Your task to perform on an android device: Search for vegetarian restaurants on Maps Image 0: 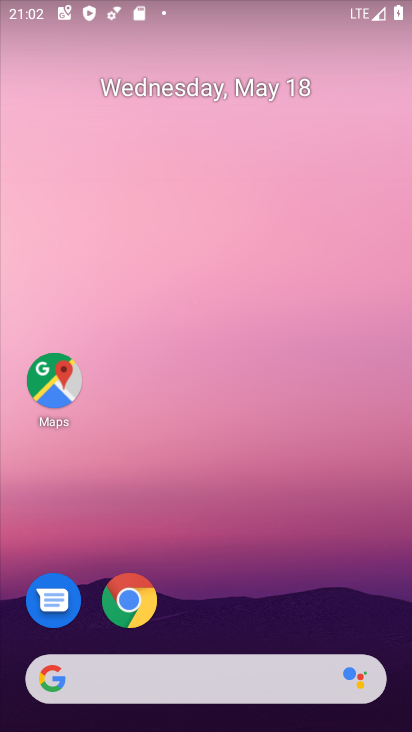
Step 0: click (45, 367)
Your task to perform on an android device: Search for vegetarian restaurants on Maps Image 1: 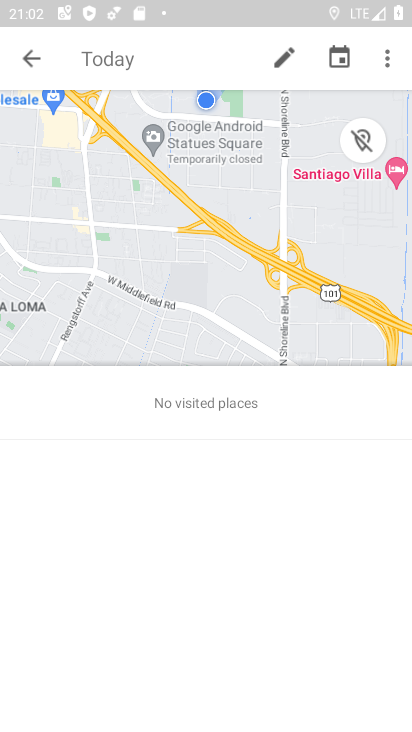
Step 1: click (35, 50)
Your task to perform on an android device: Search for vegetarian restaurants on Maps Image 2: 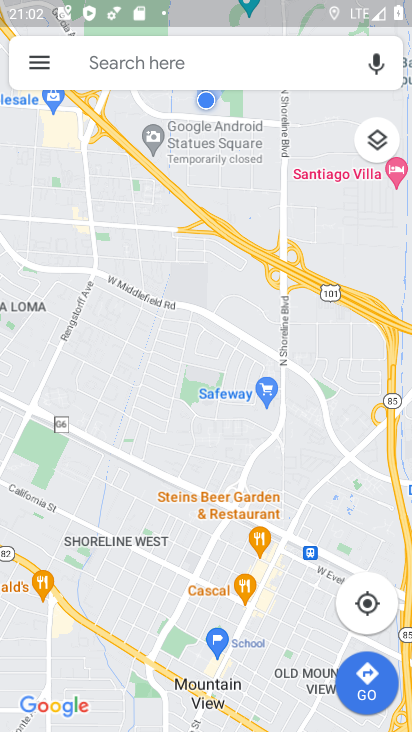
Step 2: click (166, 71)
Your task to perform on an android device: Search for vegetarian restaurants on Maps Image 3: 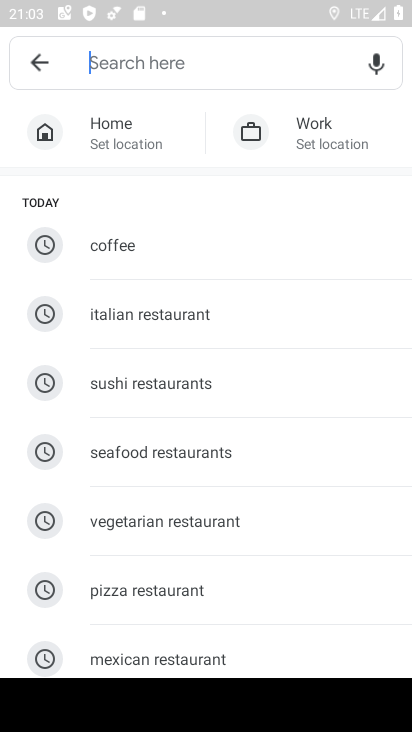
Step 3: click (173, 527)
Your task to perform on an android device: Search for vegetarian restaurants on Maps Image 4: 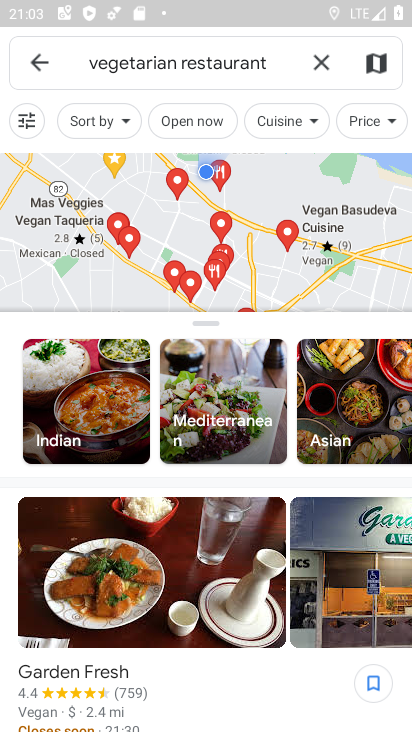
Step 4: task complete